Your task to perform on an android device: What's on my calendar tomorrow? Image 0: 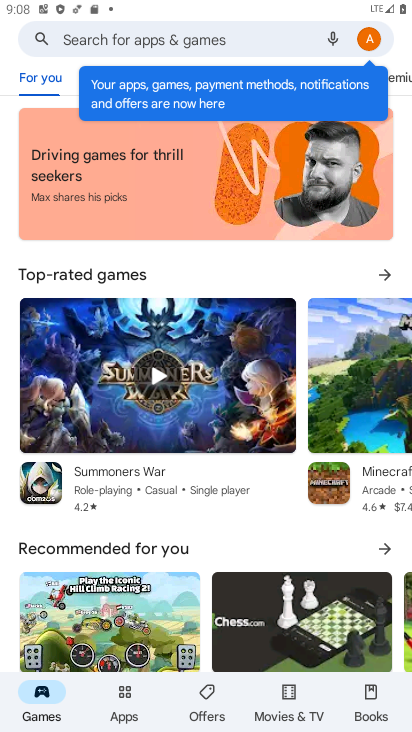
Step 0: press home button
Your task to perform on an android device: What's on my calendar tomorrow? Image 1: 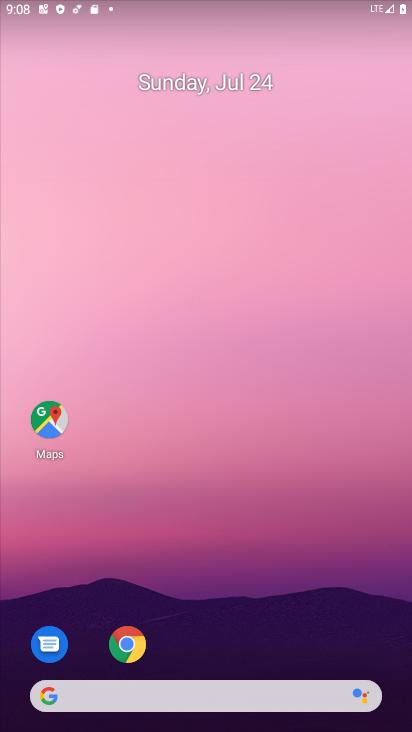
Step 1: drag from (15, 505) to (243, 89)
Your task to perform on an android device: What's on my calendar tomorrow? Image 2: 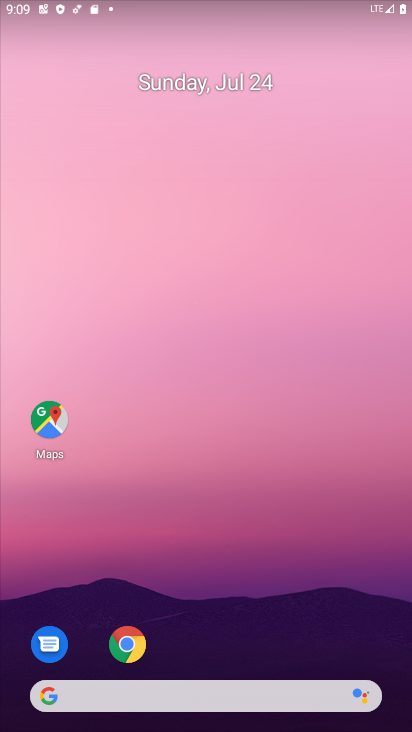
Step 2: drag from (4, 715) to (264, 76)
Your task to perform on an android device: What's on my calendar tomorrow? Image 3: 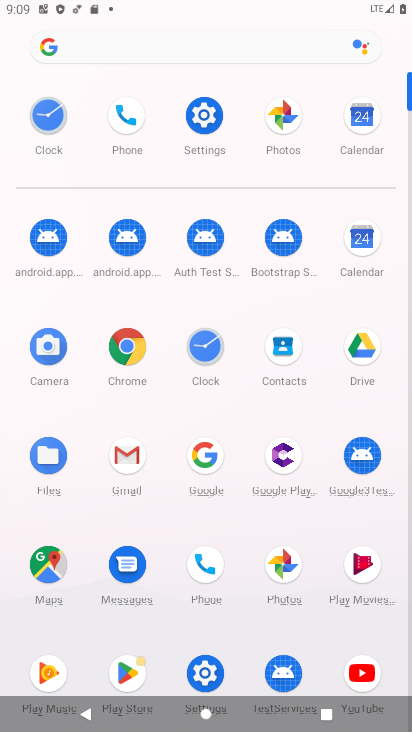
Step 3: click (364, 114)
Your task to perform on an android device: What's on my calendar tomorrow? Image 4: 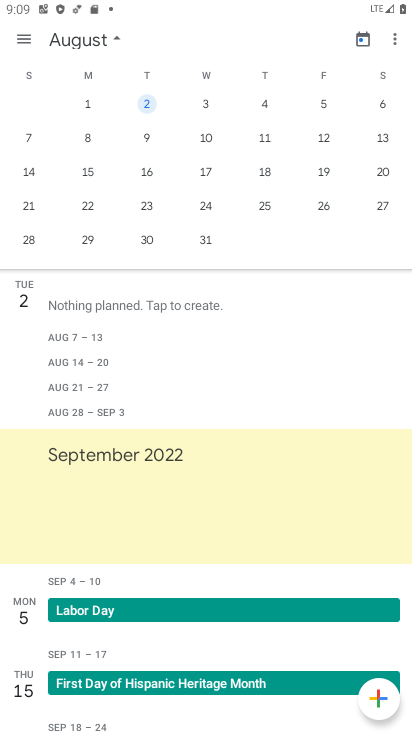
Step 4: drag from (29, 211) to (403, 165)
Your task to perform on an android device: What's on my calendar tomorrow? Image 5: 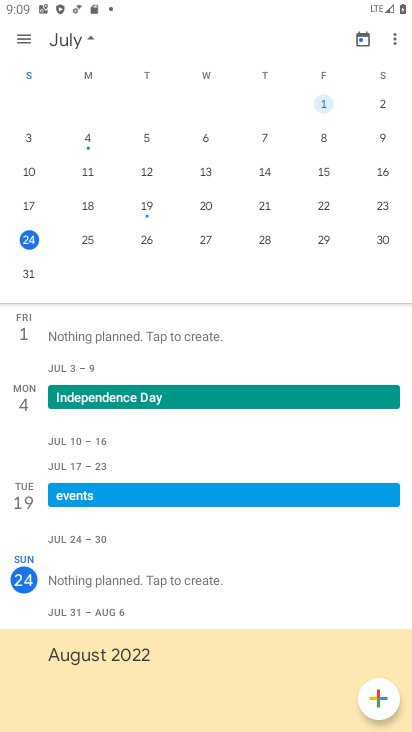
Step 5: click (88, 247)
Your task to perform on an android device: What's on my calendar tomorrow? Image 6: 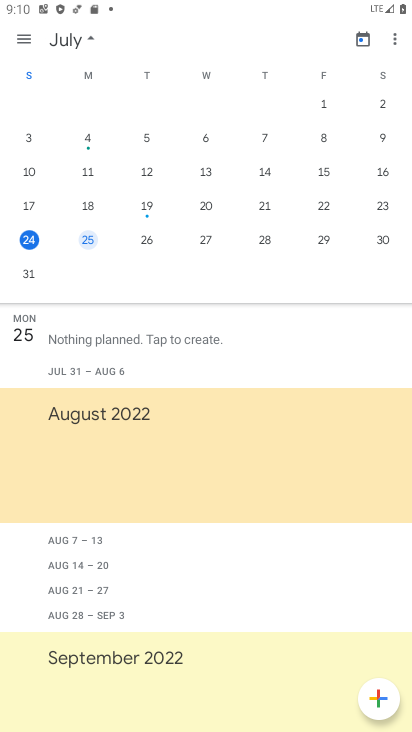
Step 6: task complete